Your task to perform on an android device: open a bookmark in the chrome app Image 0: 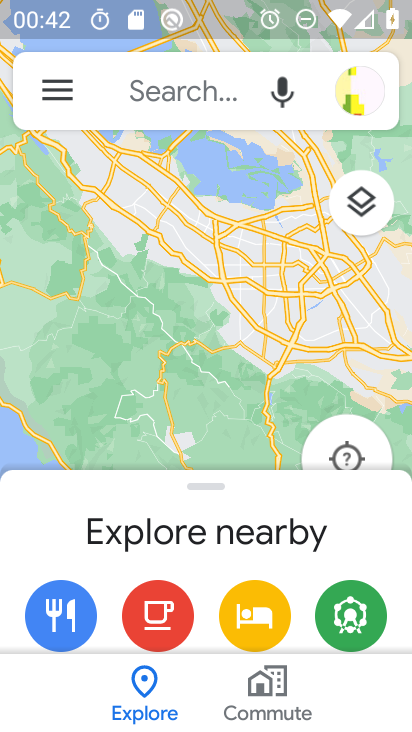
Step 0: press home button
Your task to perform on an android device: open a bookmark in the chrome app Image 1: 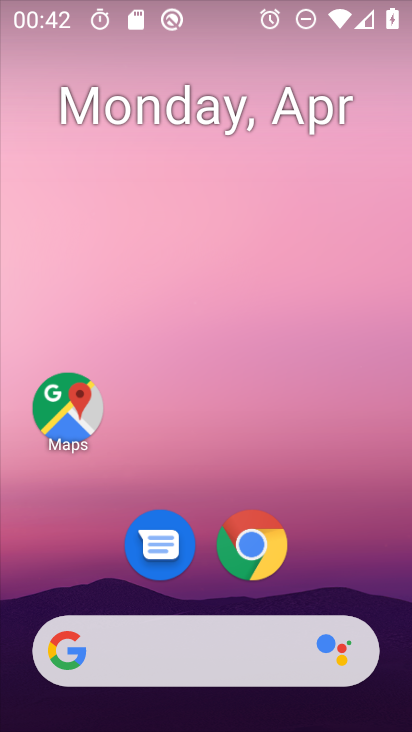
Step 1: drag from (249, 575) to (245, 232)
Your task to perform on an android device: open a bookmark in the chrome app Image 2: 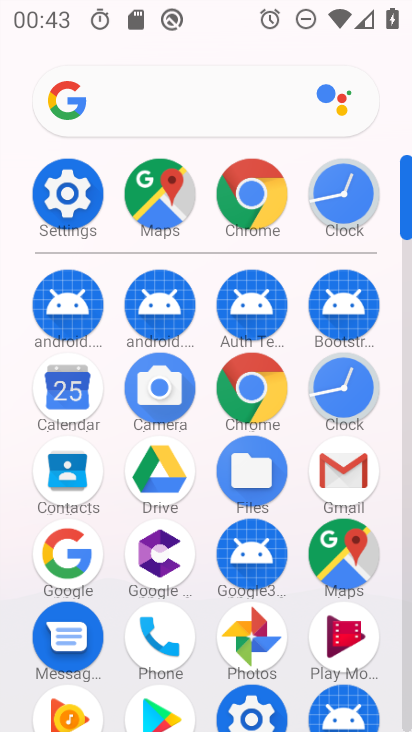
Step 2: click (253, 365)
Your task to perform on an android device: open a bookmark in the chrome app Image 3: 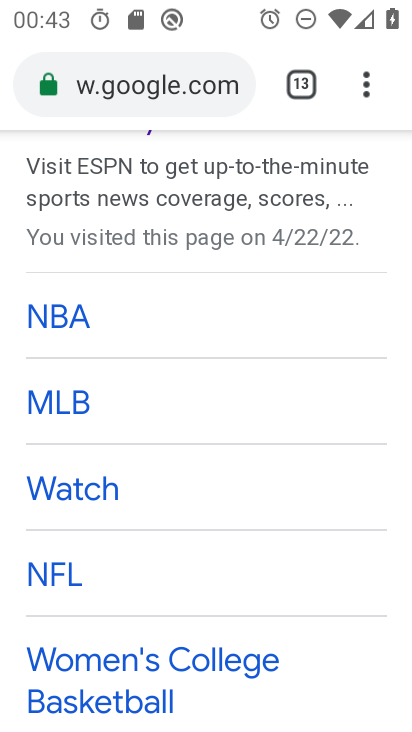
Step 3: click (346, 88)
Your task to perform on an android device: open a bookmark in the chrome app Image 4: 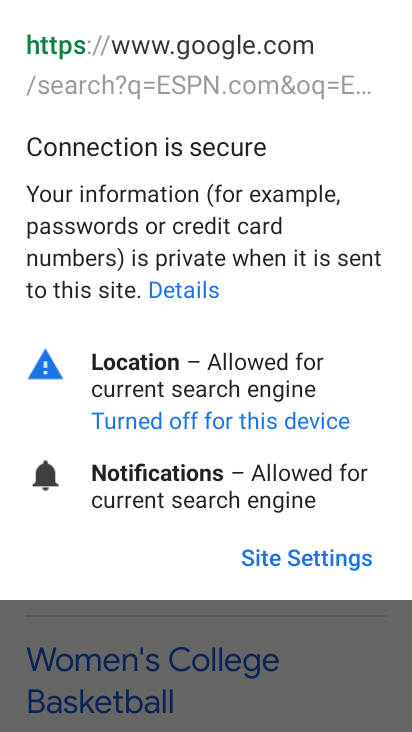
Step 4: press back button
Your task to perform on an android device: open a bookmark in the chrome app Image 5: 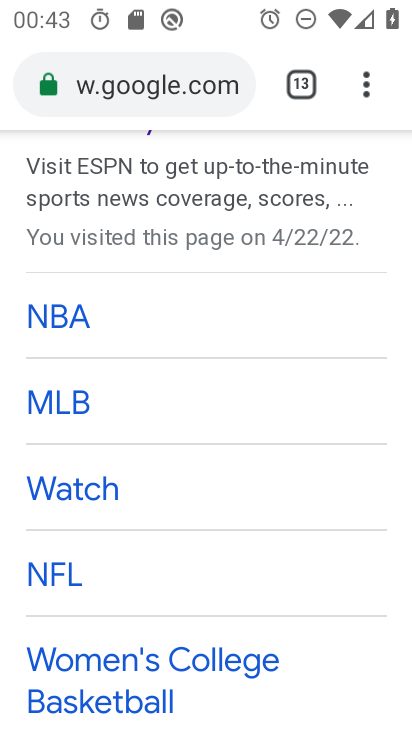
Step 5: click (349, 86)
Your task to perform on an android device: open a bookmark in the chrome app Image 6: 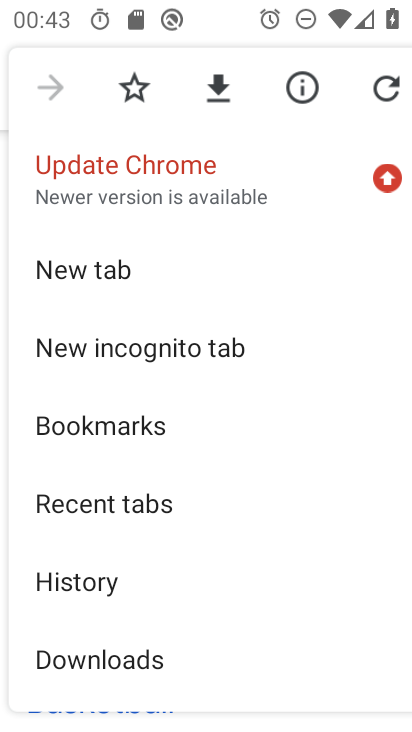
Step 6: click (131, 435)
Your task to perform on an android device: open a bookmark in the chrome app Image 7: 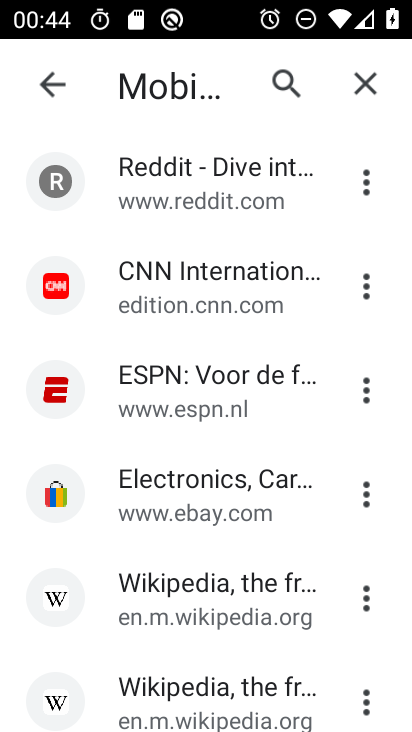
Step 7: task complete